Your task to perform on an android device: toggle airplane mode Image 0: 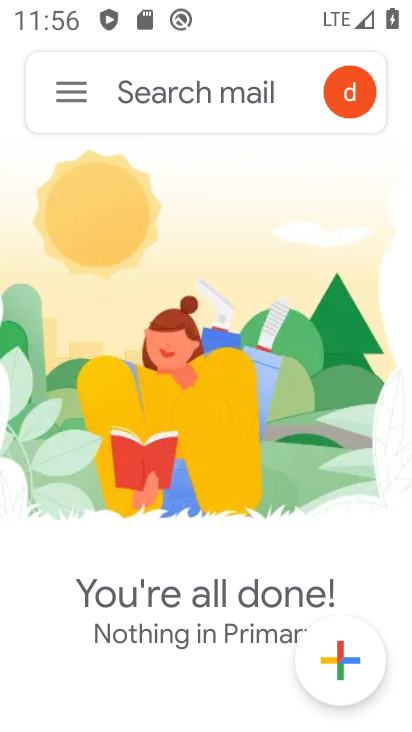
Step 0: press home button
Your task to perform on an android device: toggle airplane mode Image 1: 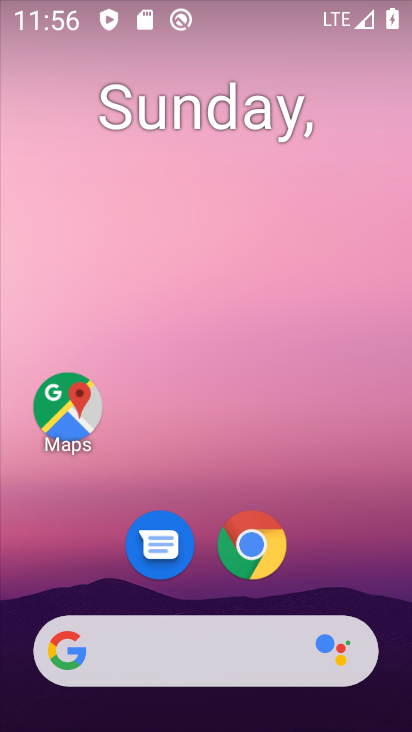
Step 1: drag from (378, 590) to (372, 163)
Your task to perform on an android device: toggle airplane mode Image 2: 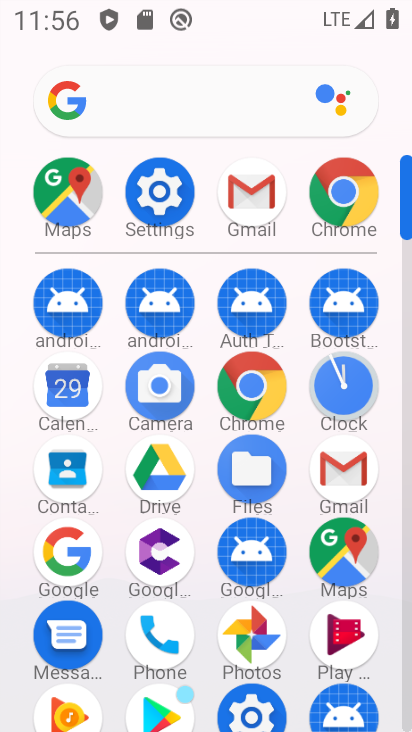
Step 2: click (171, 205)
Your task to perform on an android device: toggle airplane mode Image 3: 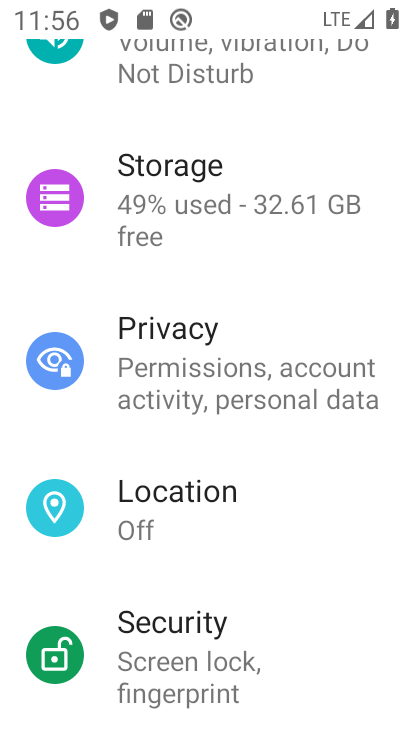
Step 3: drag from (375, 167) to (380, 334)
Your task to perform on an android device: toggle airplane mode Image 4: 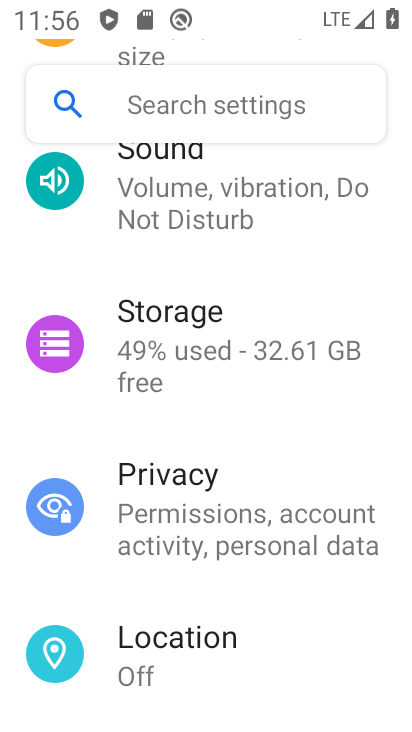
Step 4: drag from (388, 156) to (370, 330)
Your task to perform on an android device: toggle airplane mode Image 5: 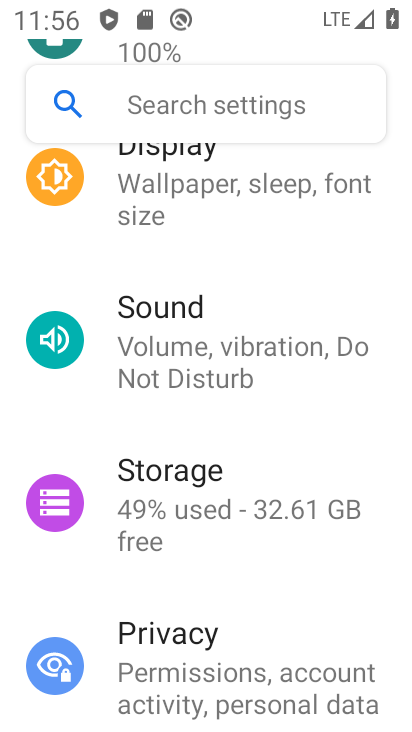
Step 5: drag from (378, 147) to (379, 351)
Your task to perform on an android device: toggle airplane mode Image 6: 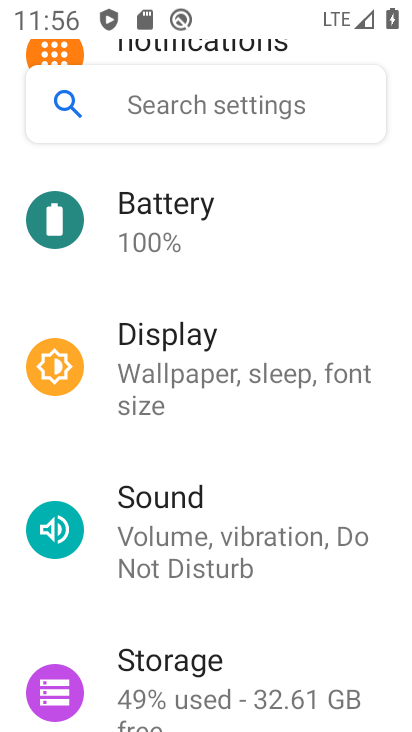
Step 6: drag from (381, 187) to (375, 369)
Your task to perform on an android device: toggle airplane mode Image 7: 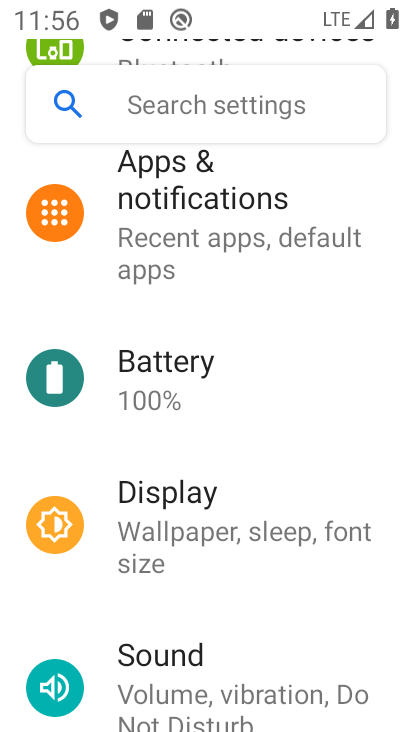
Step 7: drag from (369, 182) to (369, 369)
Your task to perform on an android device: toggle airplane mode Image 8: 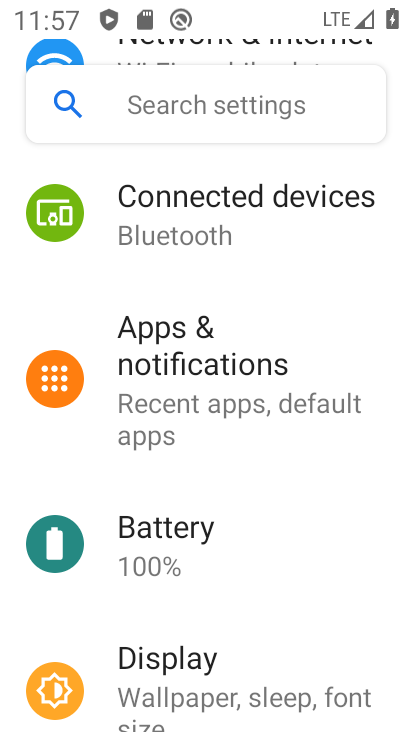
Step 8: drag from (383, 152) to (382, 364)
Your task to perform on an android device: toggle airplane mode Image 9: 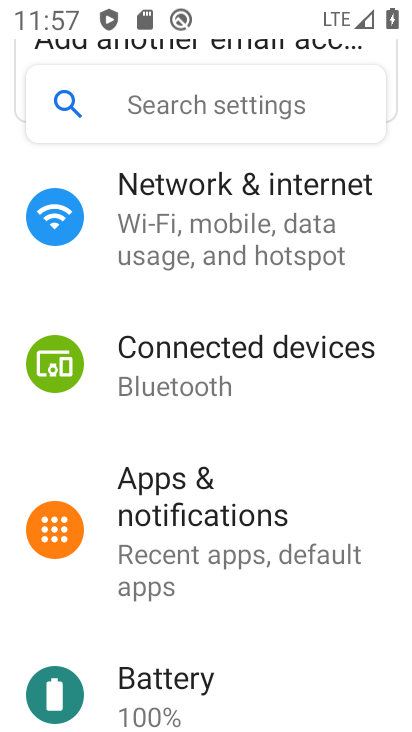
Step 9: drag from (385, 192) to (377, 422)
Your task to perform on an android device: toggle airplane mode Image 10: 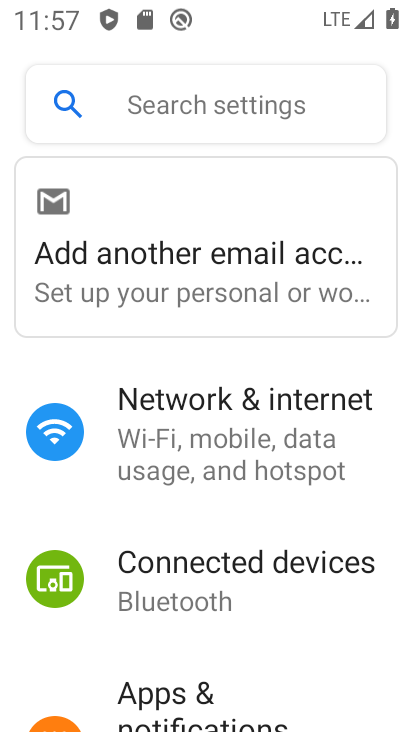
Step 10: drag from (377, 464) to (379, 341)
Your task to perform on an android device: toggle airplane mode Image 11: 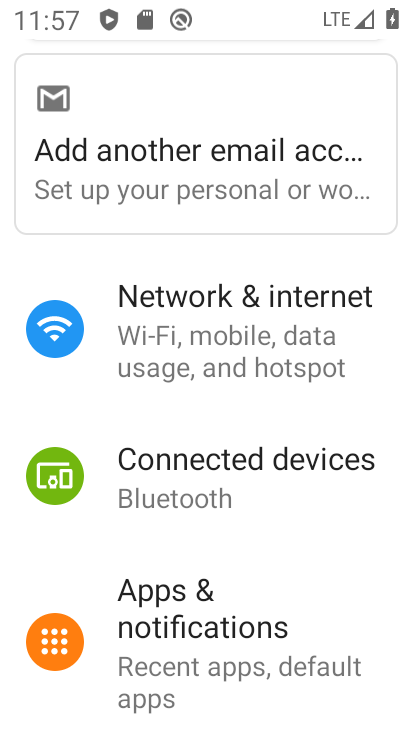
Step 11: drag from (339, 472) to (344, 331)
Your task to perform on an android device: toggle airplane mode Image 12: 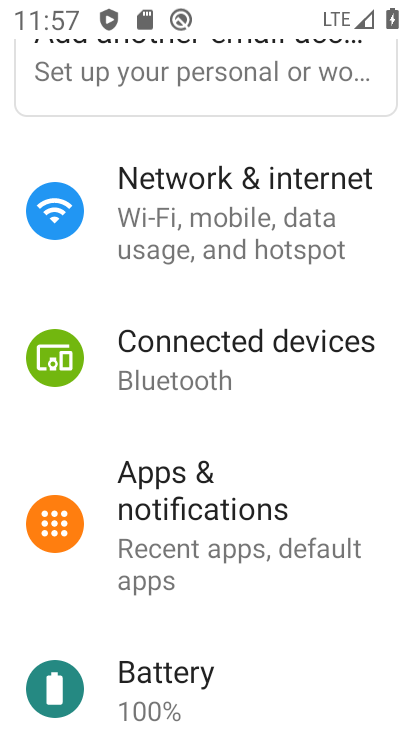
Step 12: drag from (313, 461) to (320, 328)
Your task to perform on an android device: toggle airplane mode Image 13: 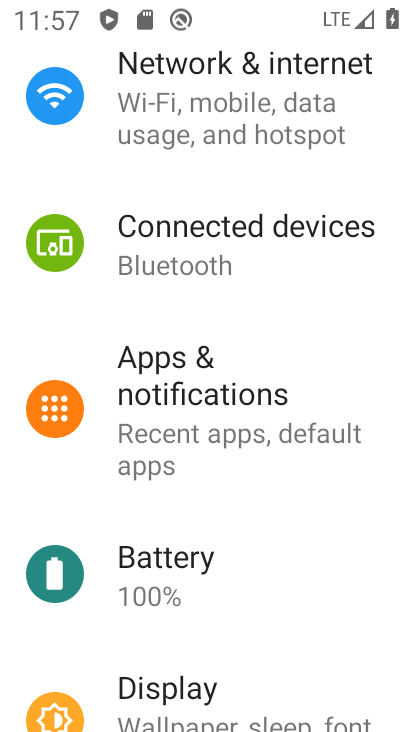
Step 13: drag from (301, 535) to (318, 350)
Your task to perform on an android device: toggle airplane mode Image 14: 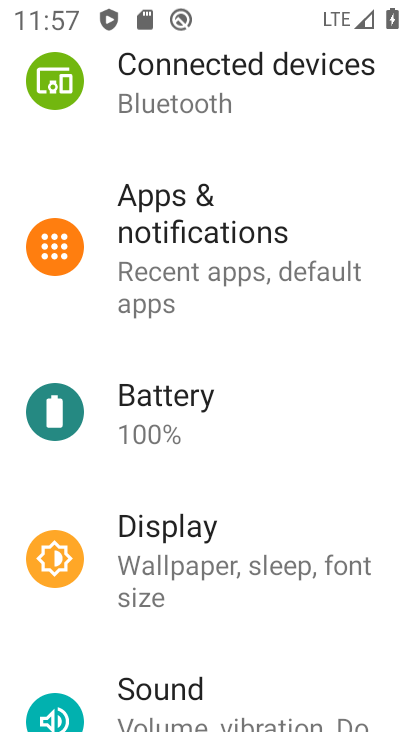
Step 14: drag from (313, 502) to (310, 397)
Your task to perform on an android device: toggle airplane mode Image 15: 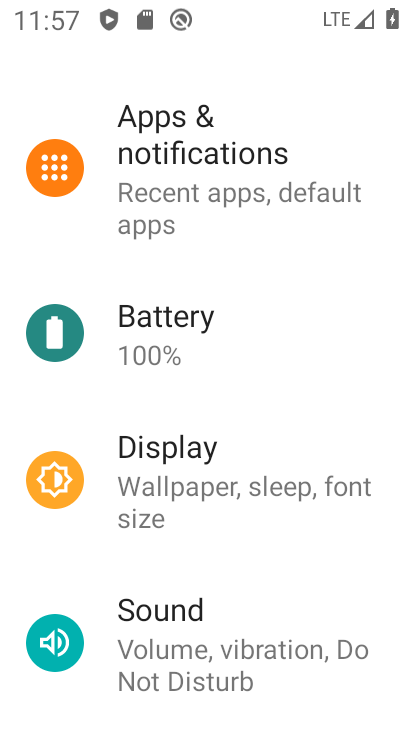
Step 15: drag from (304, 249) to (300, 411)
Your task to perform on an android device: toggle airplane mode Image 16: 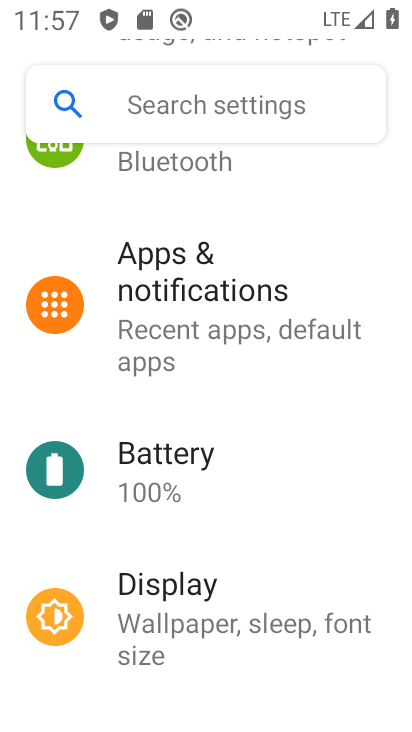
Step 16: drag from (313, 190) to (309, 364)
Your task to perform on an android device: toggle airplane mode Image 17: 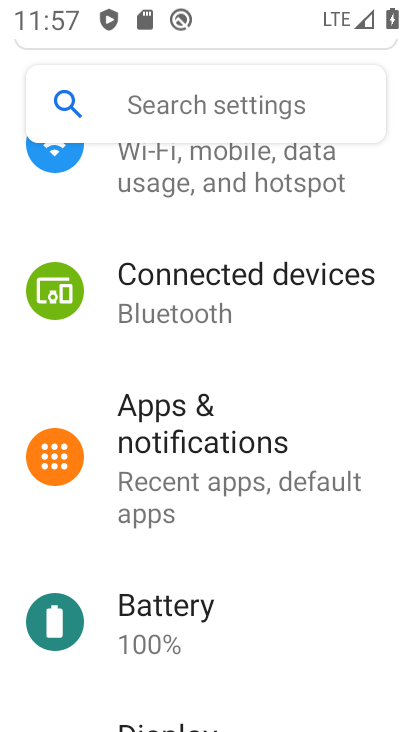
Step 17: drag from (362, 159) to (350, 335)
Your task to perform on an android device: toggle airplane mode Image 18: 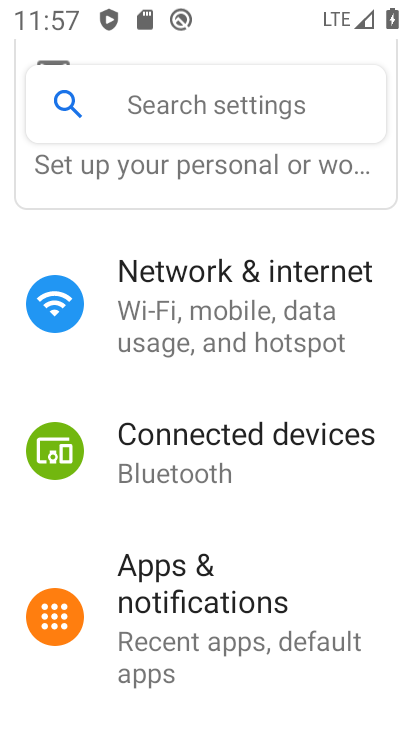
Step 18: click (298, 311)
Your task to perform on an android device: toggle airplane mode Image 19: 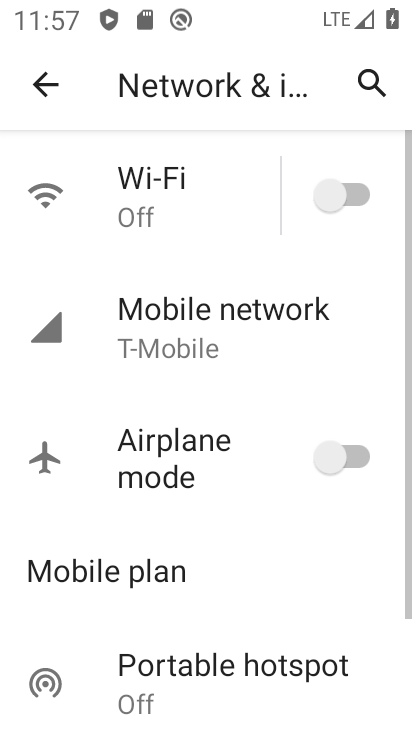
Step 19: click (331, 465)
Your task to perform on an android device: toggle airplane mode Image 20: 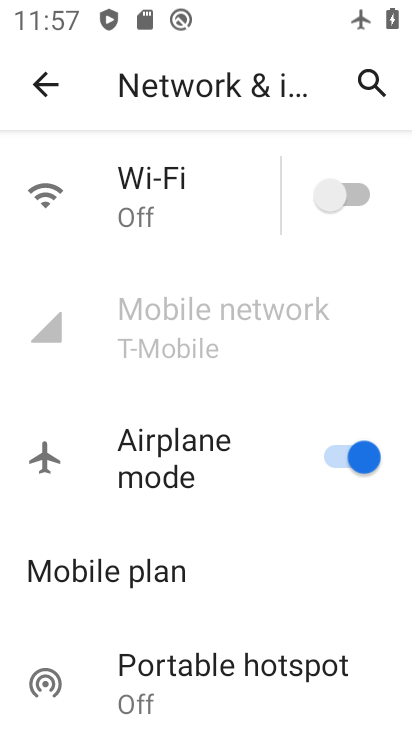
Step 20: task complete